Your task to perform on an android device: Turn off the flashlight Image 0: 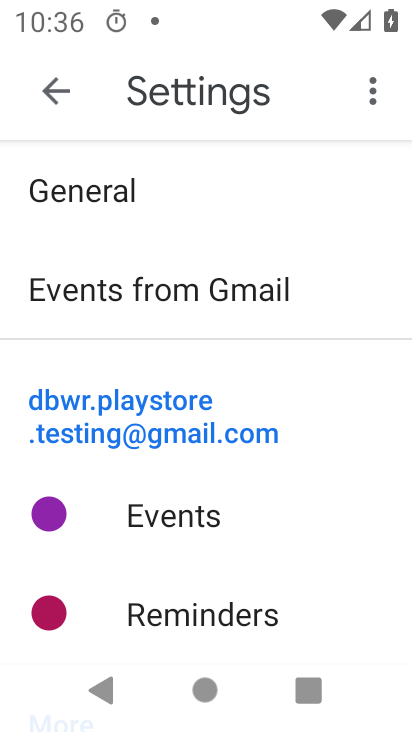
Step 0: press back button
Your task to perform on an android device: Turn off the flashlight Image 1: 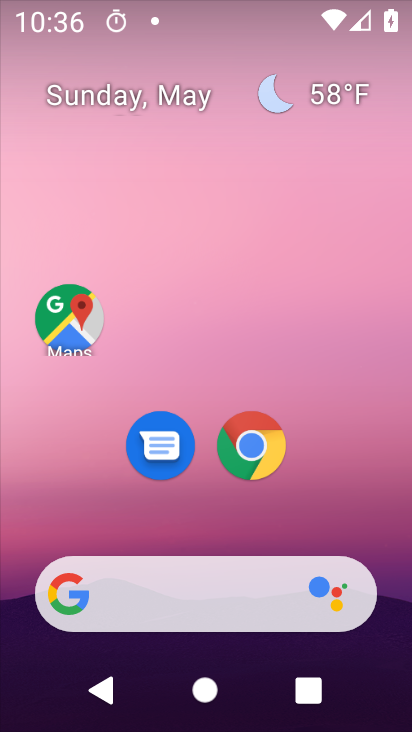
Step 1: drag from (358, 493) to (249, 20)
Your task to perform on an android device: Turn off the flashlight Image 2: 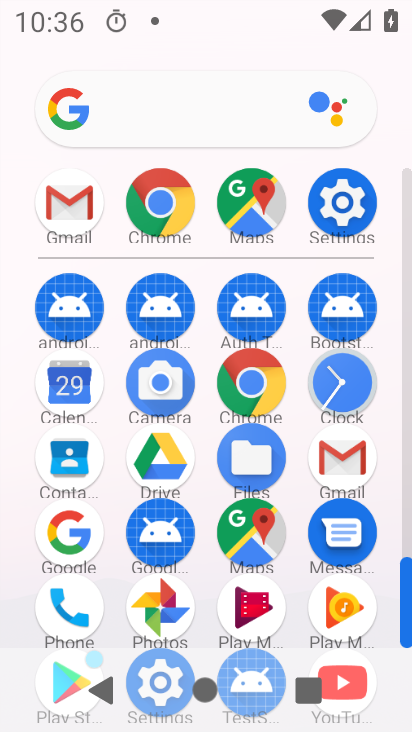
Step 2: drag from (3, 605) to (1, 250)
Your task to perform on an android device: Turn off the flashlight Image 3: 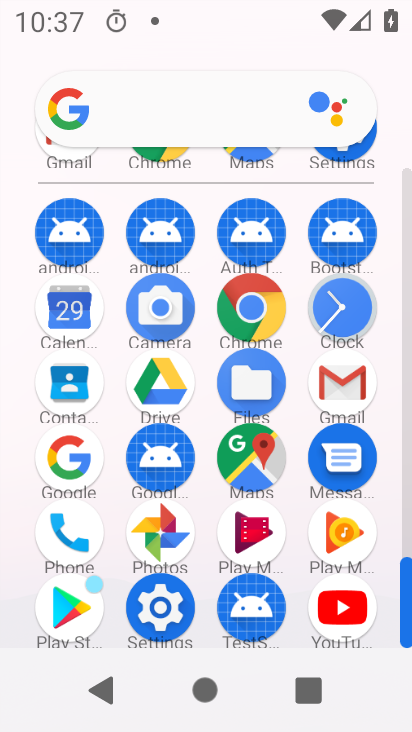
Step 3: drag from (390, 243) to (396, 458)
Your task to perform on an android device: Turn off the flashlight Image 4: 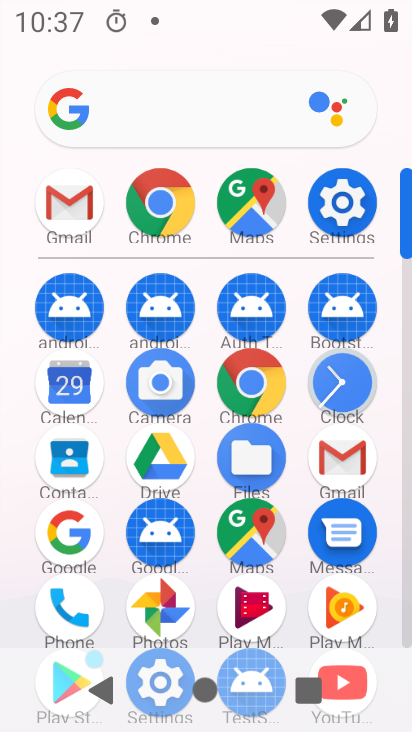
Step 4: click (339, 197)
Your task to perform on an android device: Turn off the flashlight Image 5: 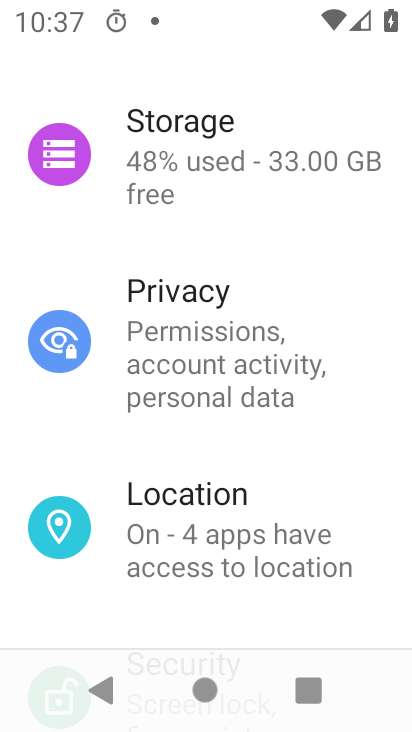
Step 5: drag from (304, 82) to (335, 578)
Your task to perform on an android device: Turn off the flashlight Image 6: 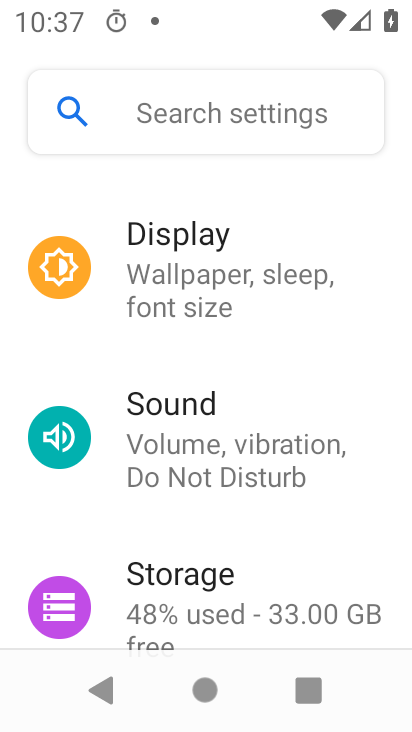
Step 6: drag from (303, 241) to (299, 643)
Your task to perform on an android device: Turn off the flashlight Image 7: 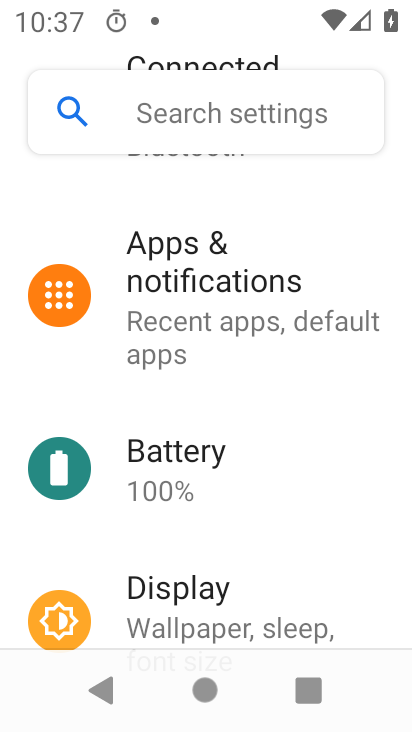
Step 7: drag from (271, 229) to (271, 618)
Your task to perform on an android device: Turn off the flashlight Image 8: 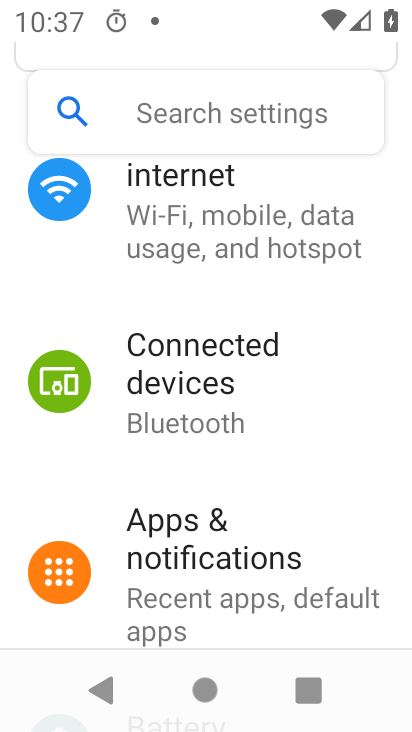
Step 8: drag from (270, 263) to (277, 622)
Your task to perform on an android device: Turn off the flashlight Image 9: 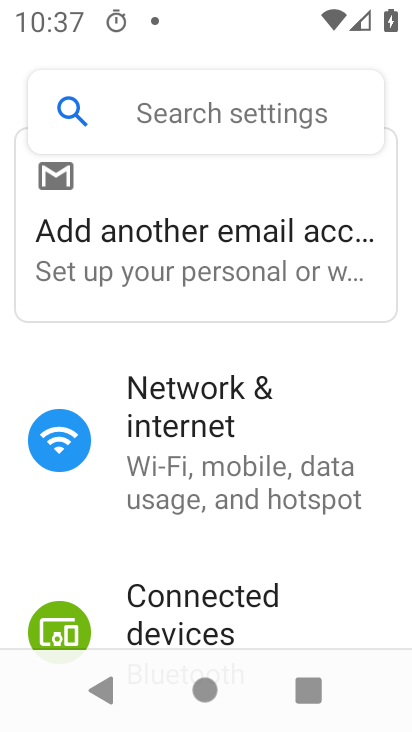
Step 9: click (261, 383)
Your task to perform on an android device: Turn off the flashlight Image 10: 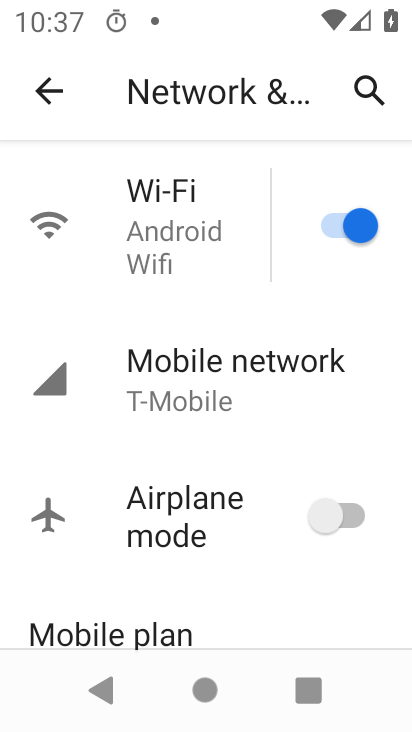
Step 10: drag from (204, 582) to (180, 182)
Your task to perform on an android device: Turn off the flashlight Image 11: 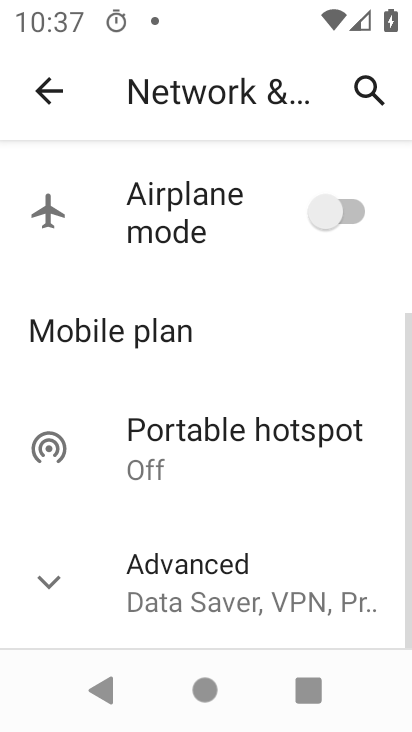
Step 11: drag from (226, 574) to (192, 219)
Your task to perform on an android device: Turn off the flashlight Image 12: 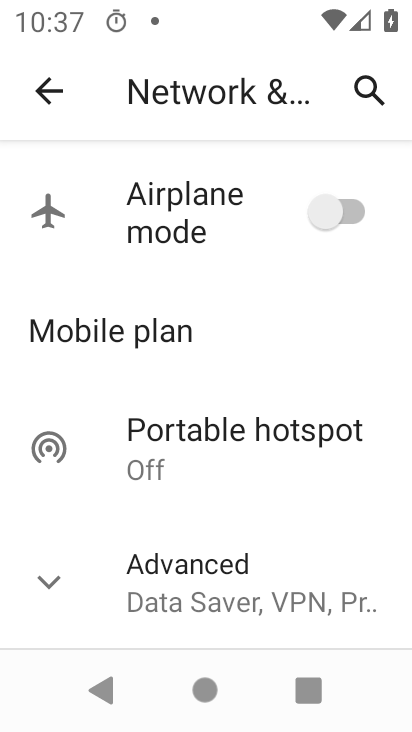
Step 12: click (49, 587)
Your task to perform on an android device: Turn off the flashlight Image 13: 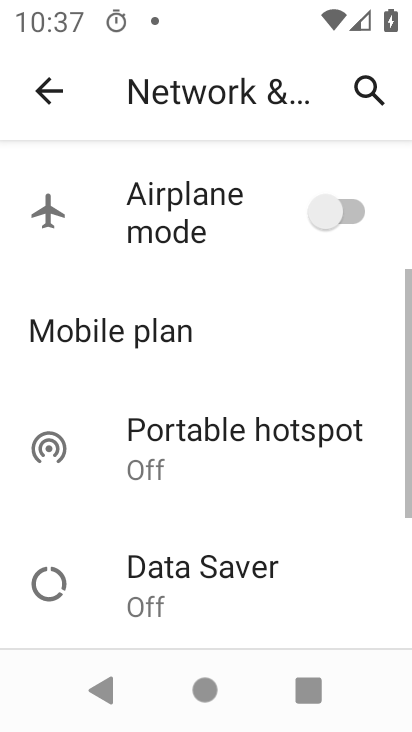
Step 13: task complete